Your task to perform on an android device: When is my next appointment? Image 0: 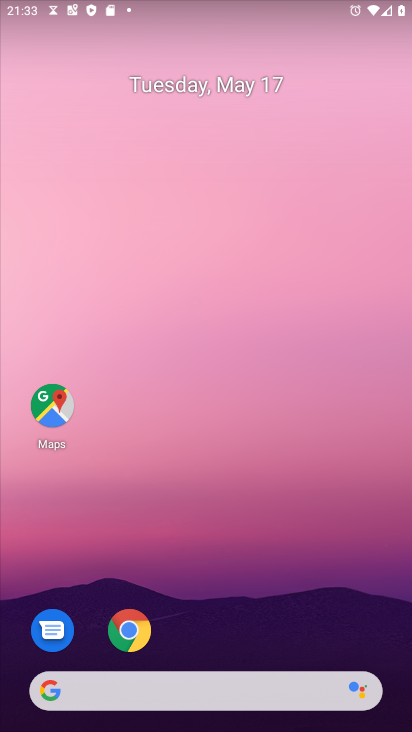
Step 0: drag from (184, 491) to (167, 93)
Your task to perform on an android device: When is my next appointment? Image 1: 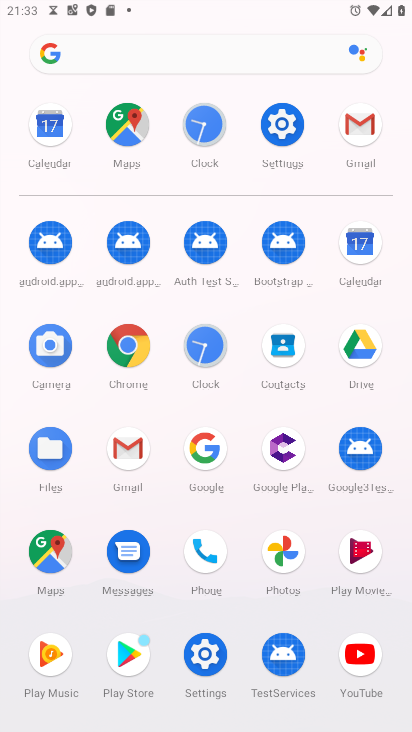
Step 1: click (49, 145)
Your task to perform on an android device: When is my next appointment? Image 2: 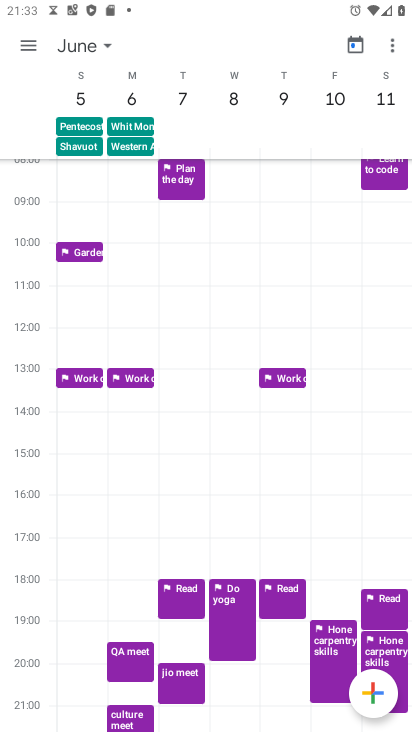
Step 2: click (81, 46)
Your task to perform on an android device: When is my next appointment? Image 3: 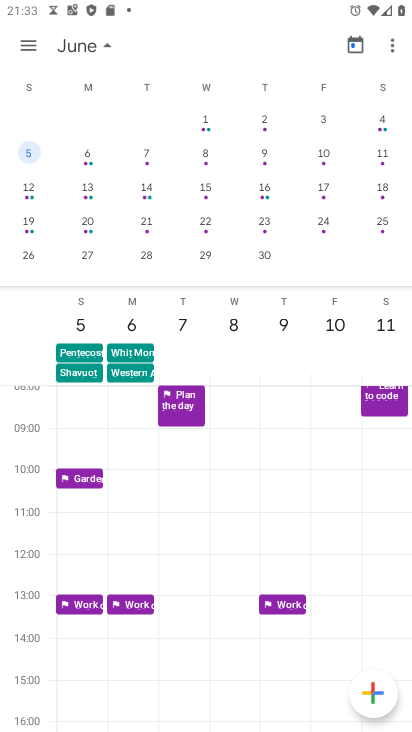
Step 3: drag from (32, 201) to (397, 215)
Your task to perform on an android device: When is my next appointment? Image 4: 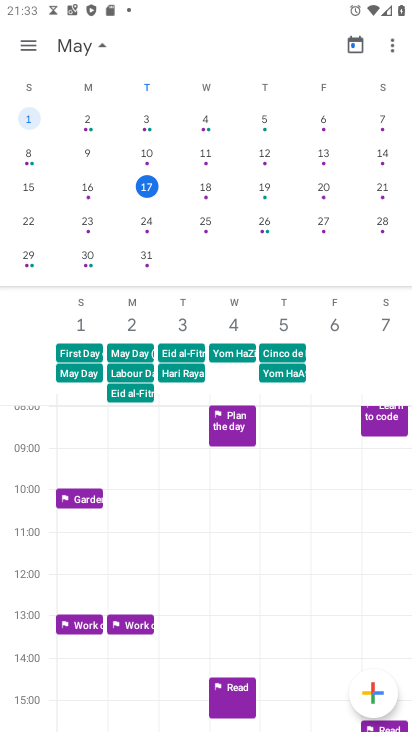
Step 4: click (144, 190)
Your task to perform on an android device: When is my next appointment? Image 5: 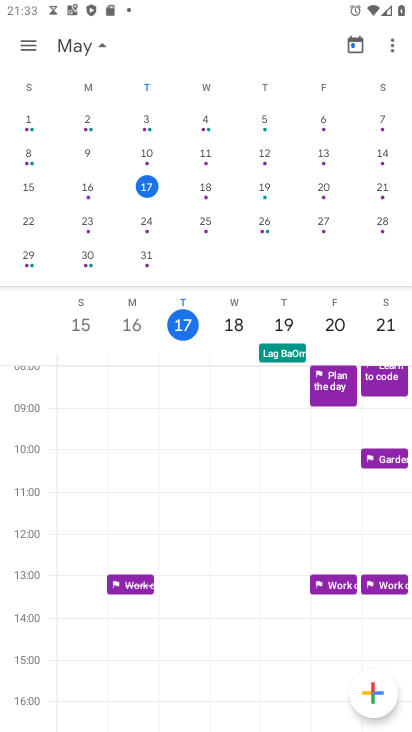
Step 5: click (23, 41)
Your task to perform on an android device: When is my next appointment? Image 6: 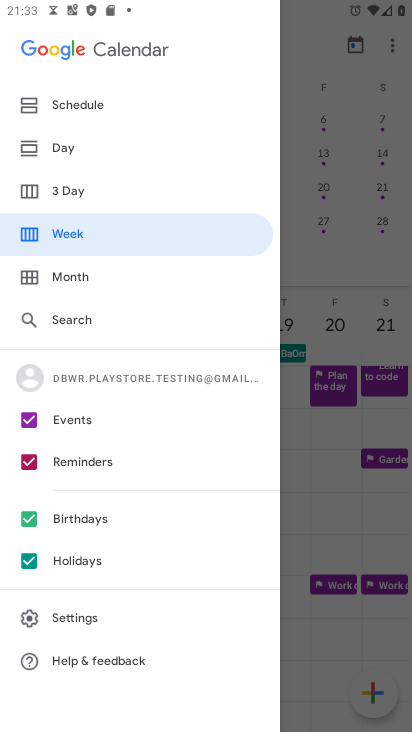
Step 6: click (61, 105)
Your task to perform on an android device: When is my next appointment? Image 7: 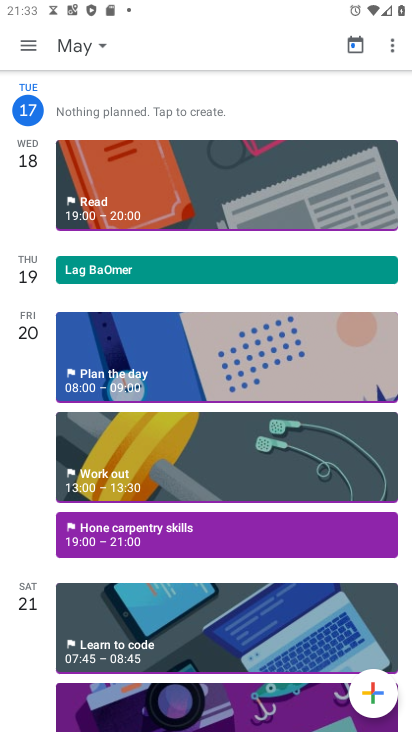
Step 7: click (160, 197)
Your task to perform on an android device: When is my next appointment? Image 8: 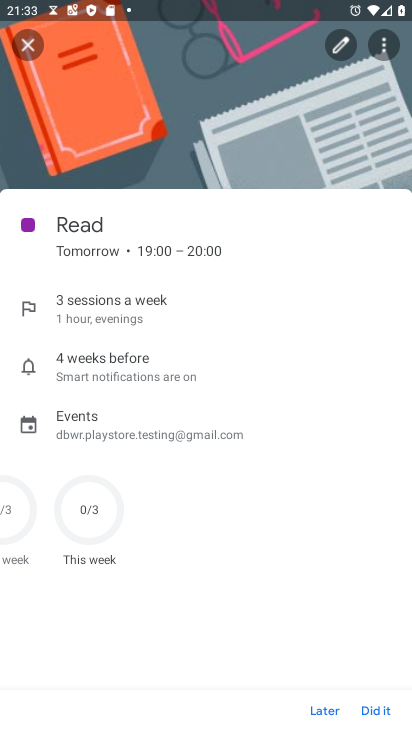
Step 8: task complete